Your task to perform on an android device: Open display settings Image 0: 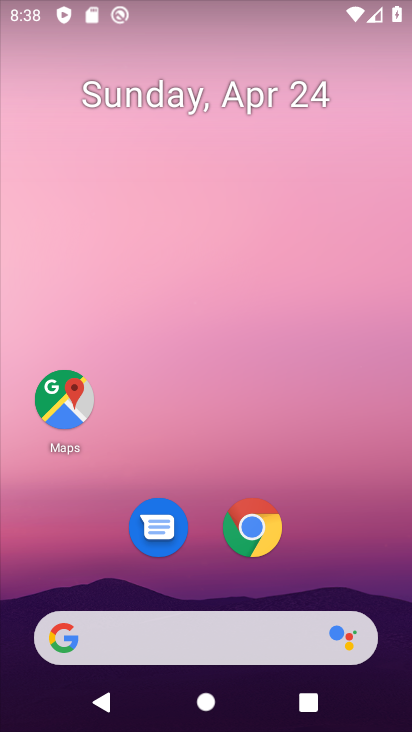
Step 0: drag from (383, 606) to (243, 14)
Your task to perform on an android device: Open display settings Image 1: 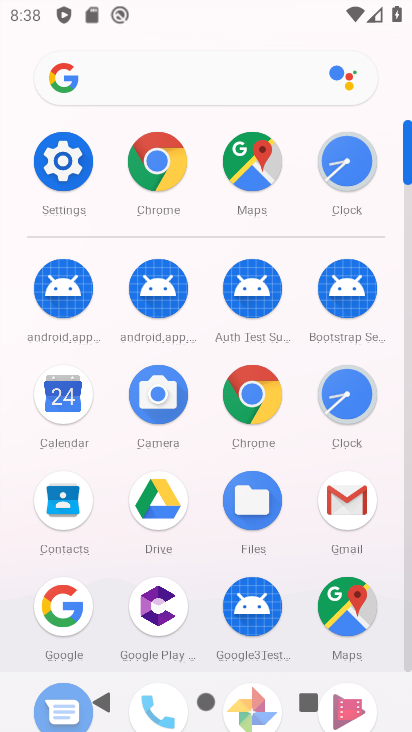
Step 1: click (80, 168)
Your task to perform on an android device: Open display settings Image 2: 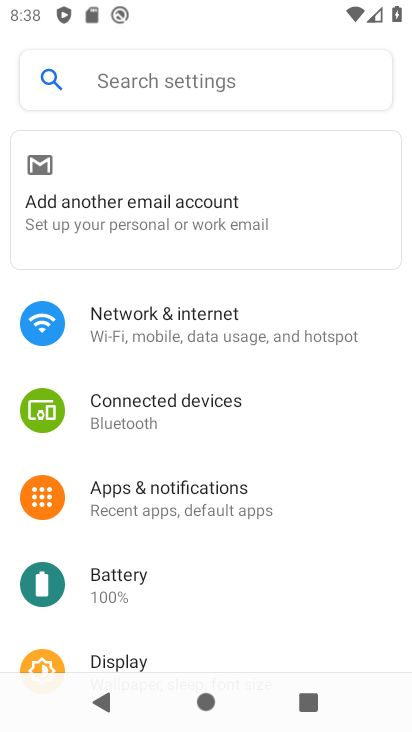
Step 2: click (126, 657)
Your task to perform on an android device: Open display settings Image 3: 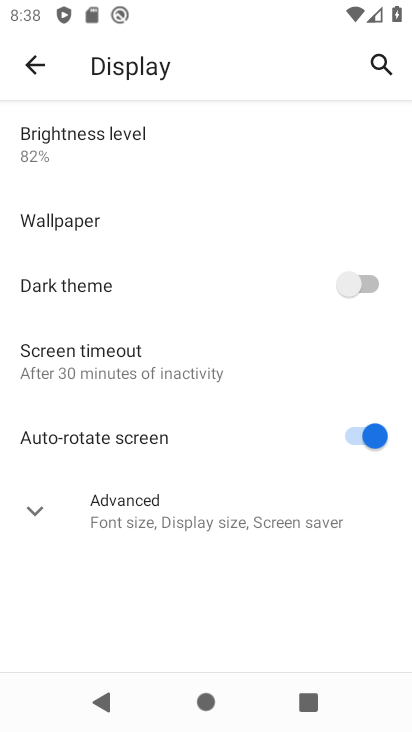
Step 3: task complete